Your task to perform on an android device: Go to internet settings Image 0: 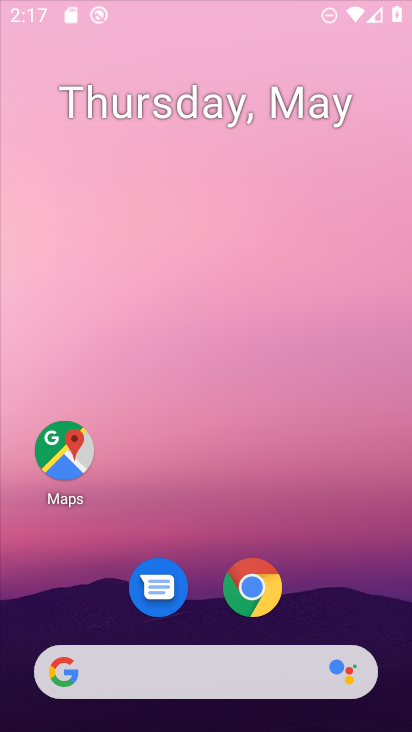
Step 0: press home button
Your task to perform on an android device: Go to internet settings Image 1: 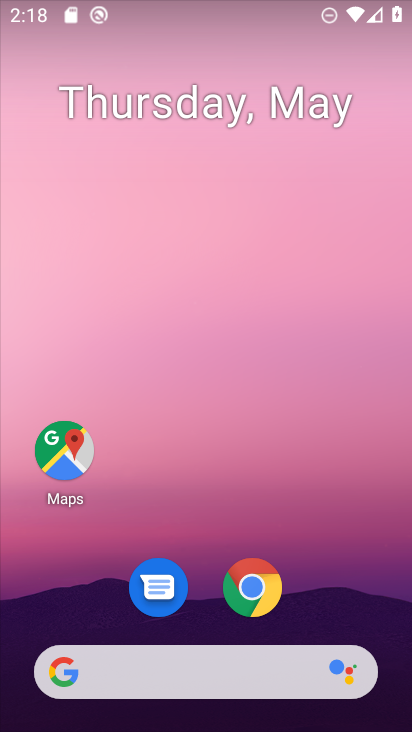
Step 1: drag from (321, 556) to (324, 75)
Your task to perform on an android device: Go to internet settings Image 2: 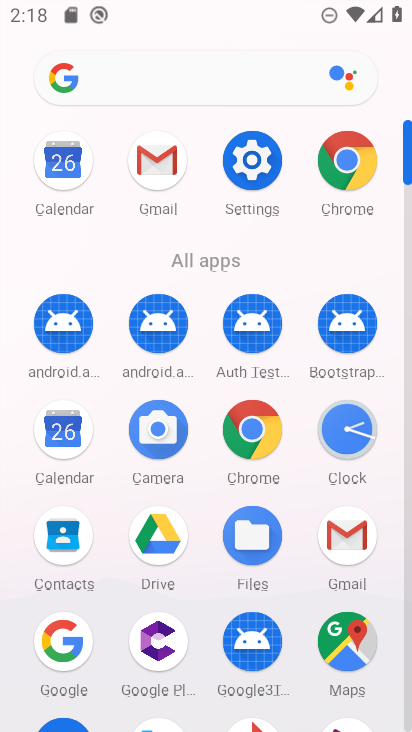
Step 2: click (262, 160)
Your task to perform on an android device: Go to internet settings Image 3: 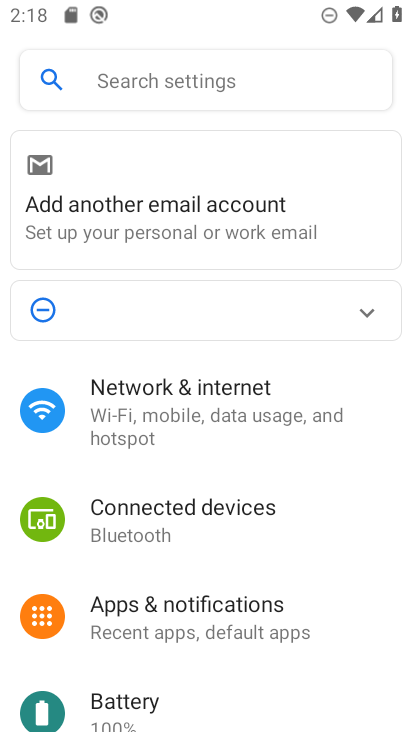
Step 3: click (182, 395)
Your task to perform on an android device: Go to internet settings Image 4: 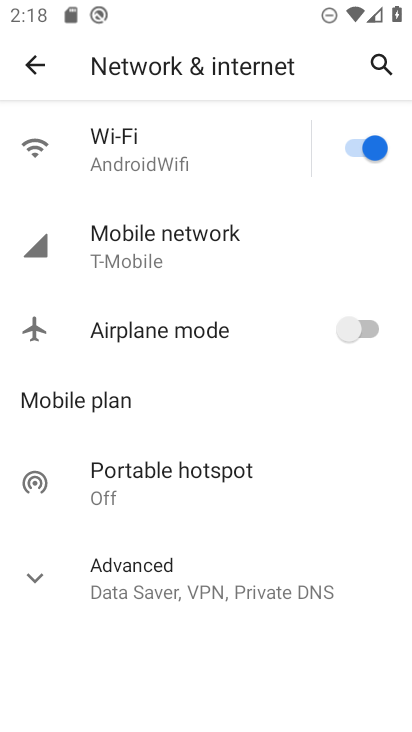
Step 4: click (164, 576)
Your task to perform on an android device: Go to internet settings Image 5: 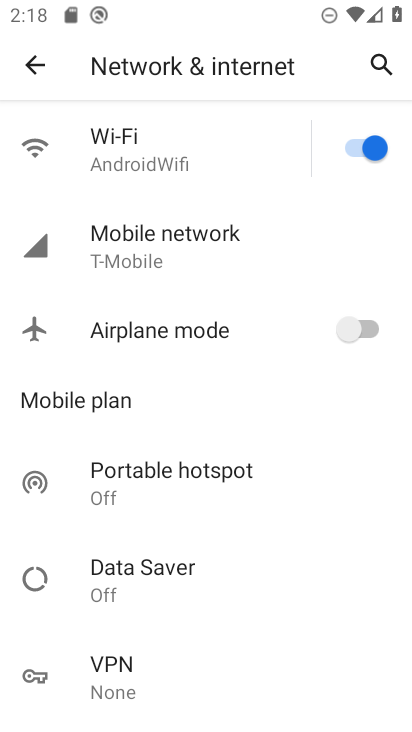
Step 5: task complete